Your task to perform on an android device: Open CNN.com Image 0: 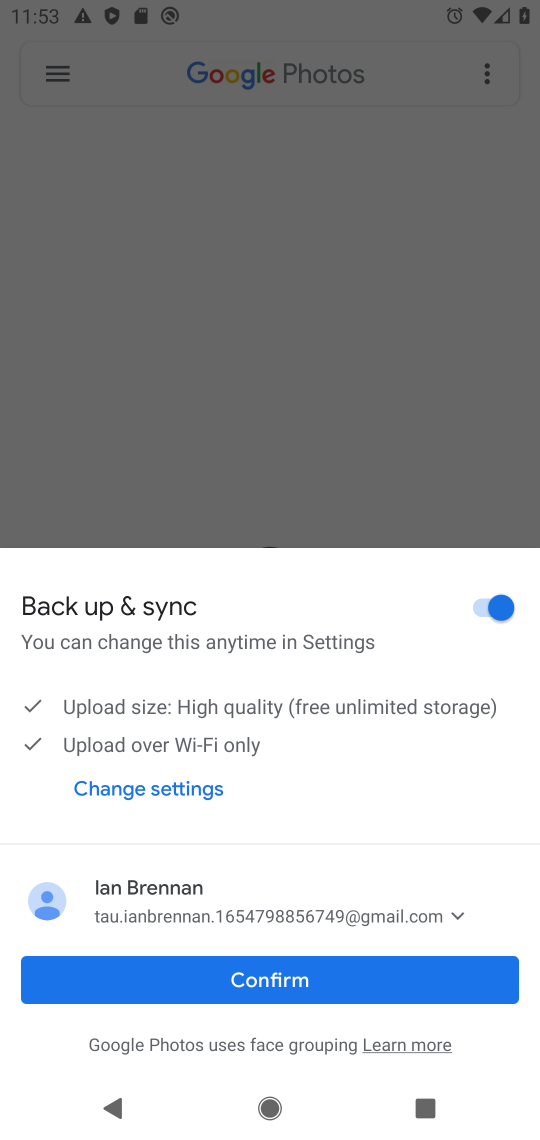
Step 0: press home button
Your task to perform on an android device: Open CNN.com Image 1: 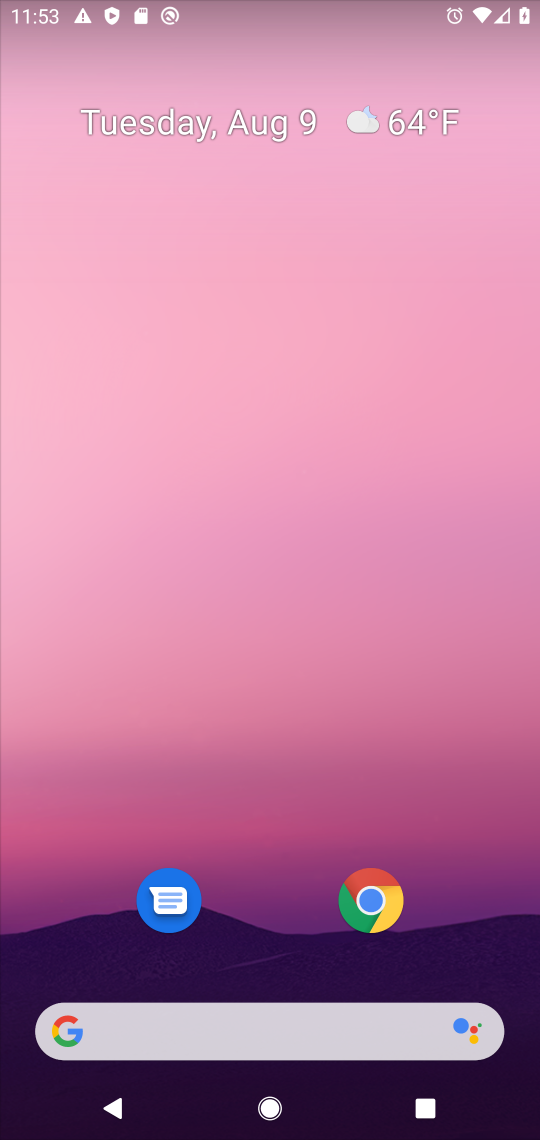
Step 1: click (308, 1034)
Your task to perform on an android device: Open CNN.com Image 2: 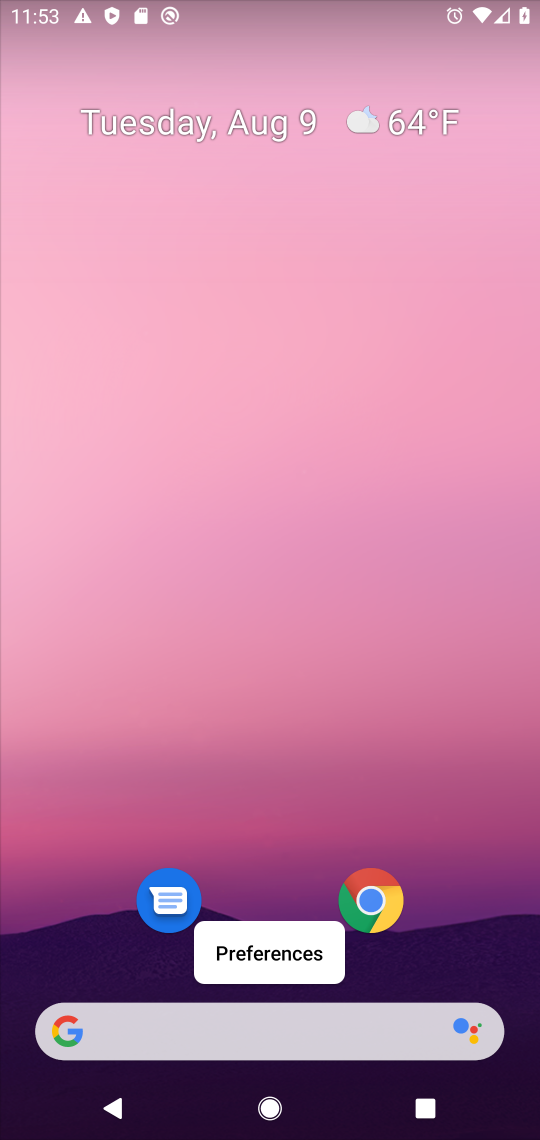
Step 2: click (308, 1034)
Your task to perform on an android device: Open CNN.com Image 3: 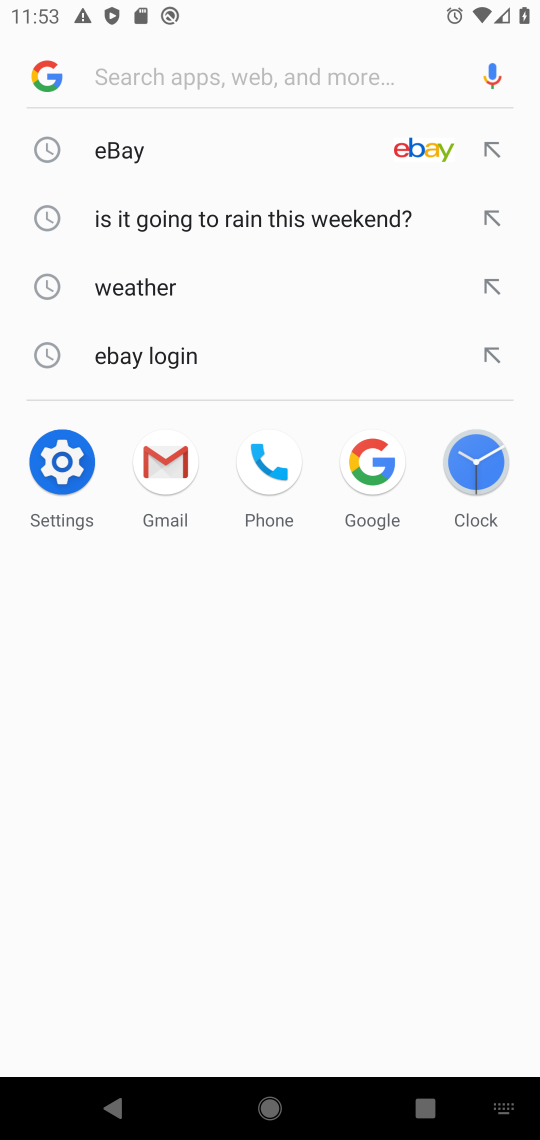
Step 3: type "cnn.com"
Your task to perform on an android device: Open CNN.com Image 4: 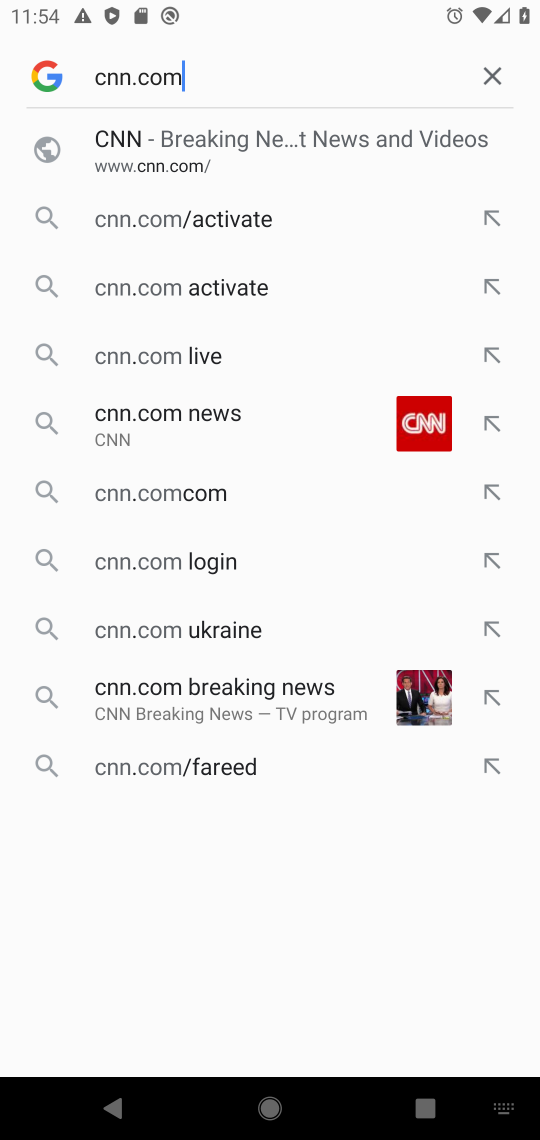
Step 4: click (354, 145)
Your task to perform on an android device: Open CNN.com Image 5: 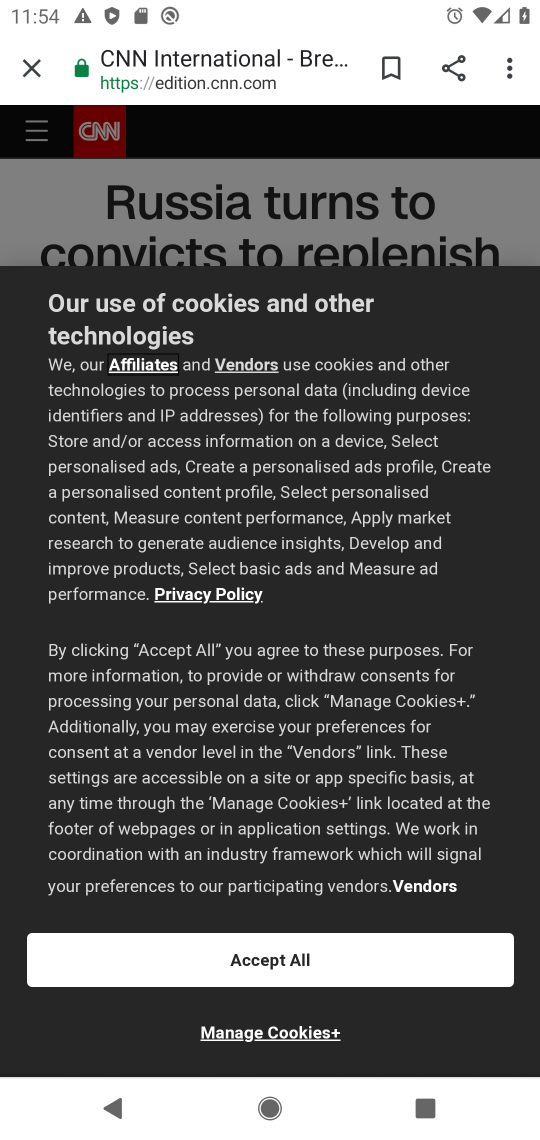
Step 5: click (322, 964)
Your task to perform on an android device: Open CNN.com Image 6: 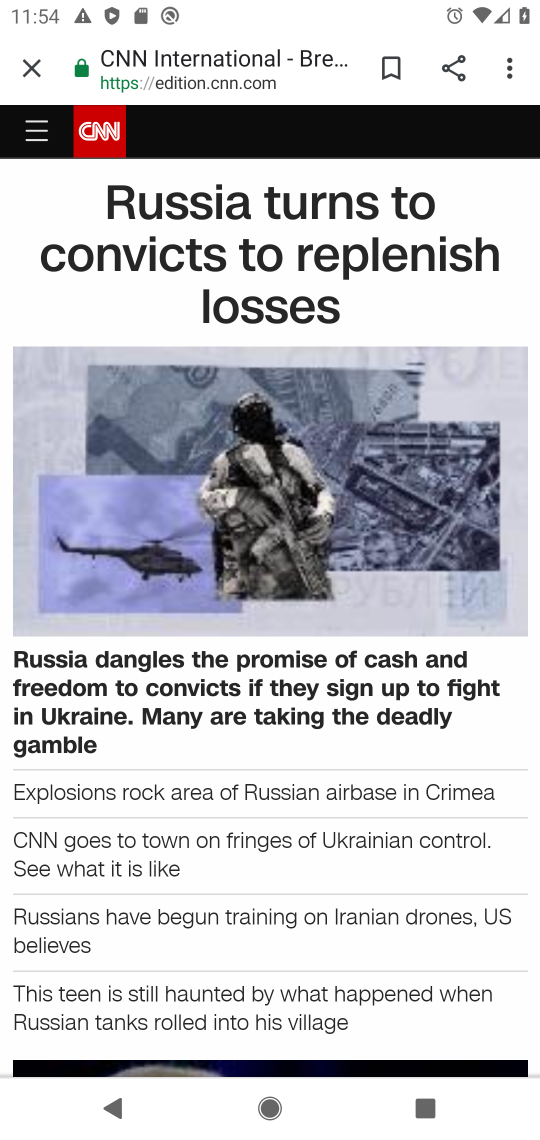
Step 6: task complete